Your task to perform on an android device: toggle location history Image 0: 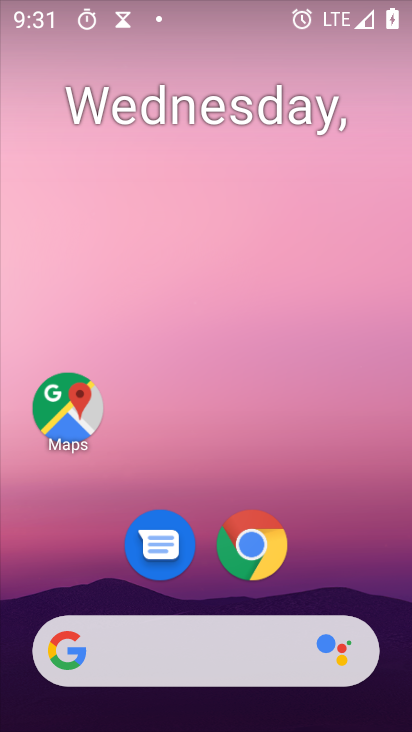
Step 0: press home button
Your task to perform on an android device: toggle location history Image 1: 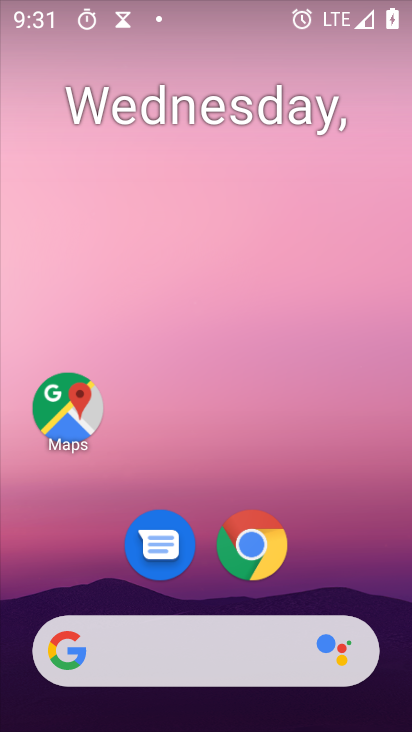
Step 1: click (69, 418)
Your task to perform on an android device: toggle location history Image 2: 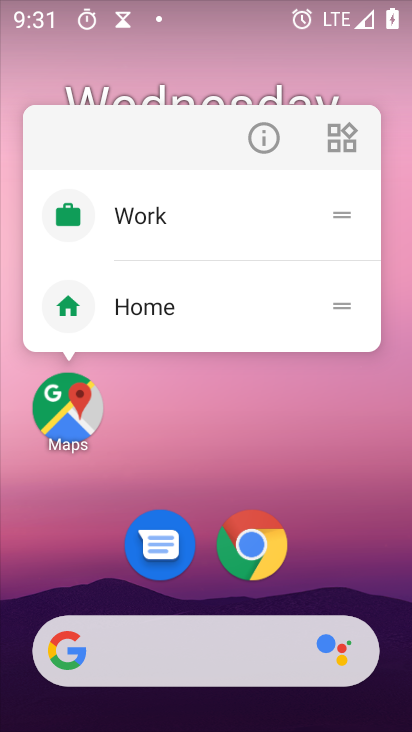
Step 2: click (55, 424)
Your task to perform on an android device: toggle location history Image 3: 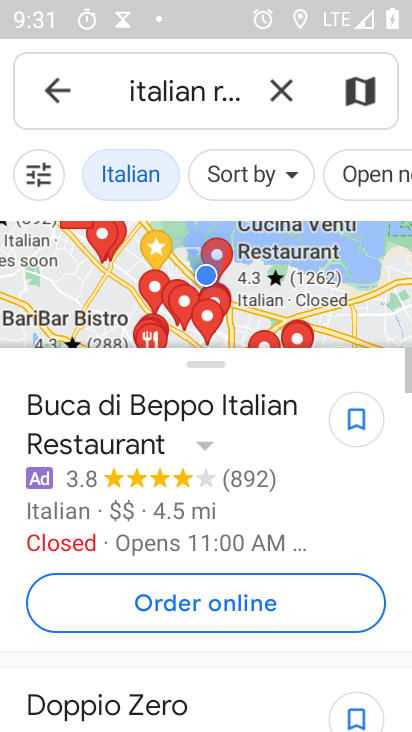
Step 3: click (66, 94)
Your task to perform on an android device: toggle location history Image 4: 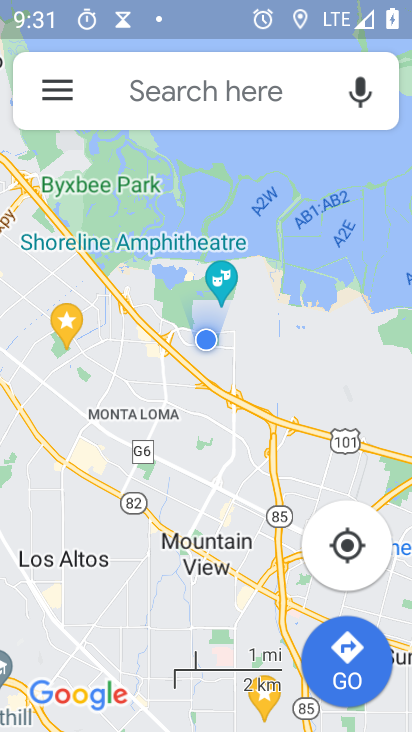
Step 4: click (52, 96)
Your task to perform on an android device: toggle location history Image 5: 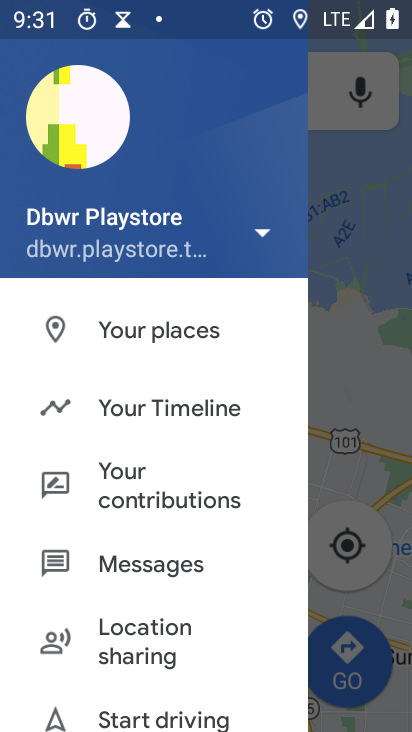
Step 5: click (179, 414)
Your task to perform on an android device: toggle location history Image 6: 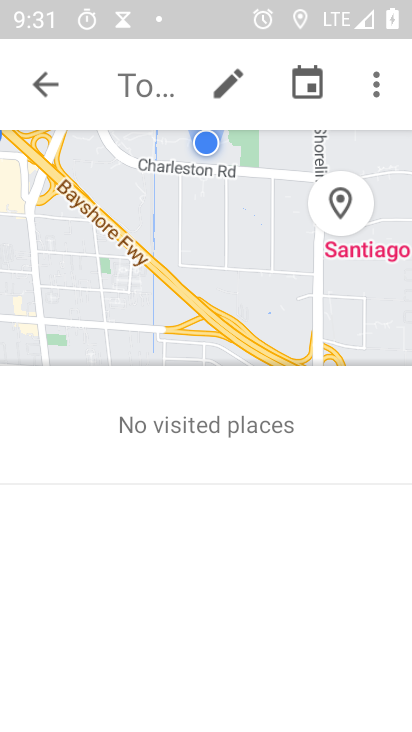
Step 6: click (376, 89)
Your task to perform on an android device: toggle location history Image 7: 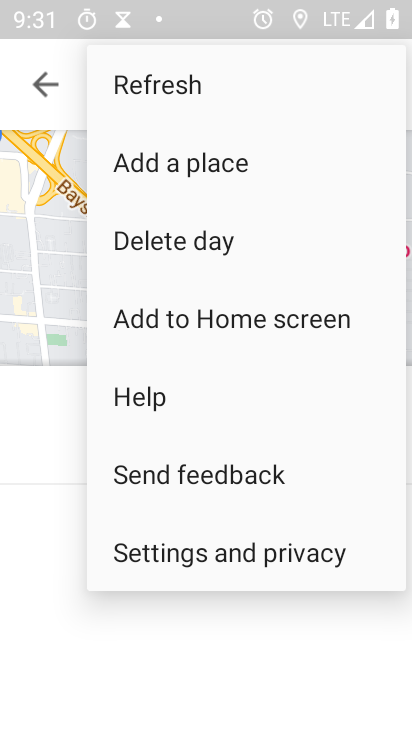
Step 7: click (212, 559)
Your task to perform on an android device: toggle location history Image 8: 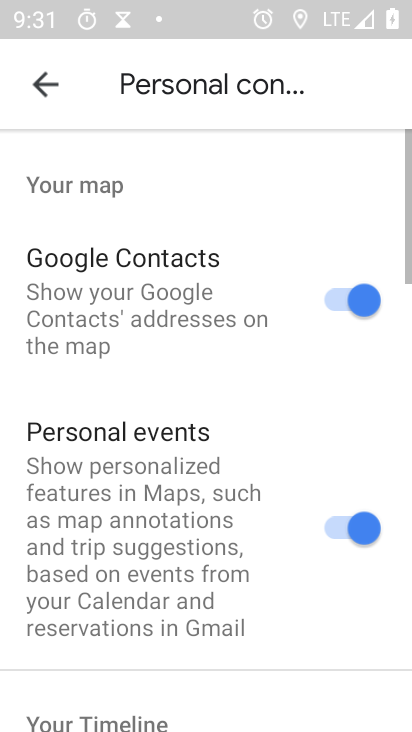
Step 8: drag from (163, 612) to (354, 83)
Your task to perform on an android device: toggle location history Image 9: 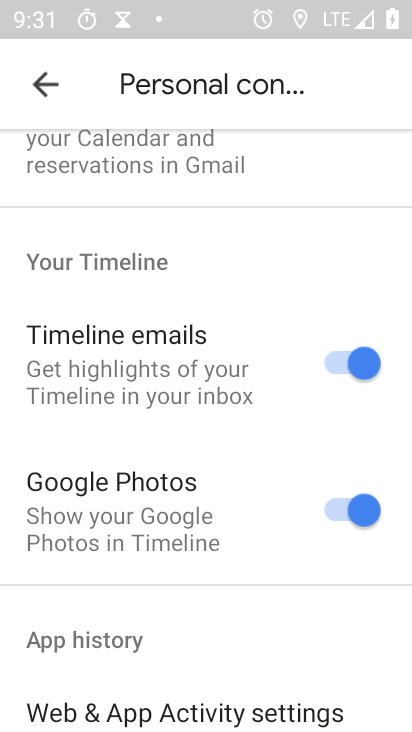
Step 9: drag from (201, 643) to (333, 139)
Your task to perform on an android device: toggle location history Image 10: 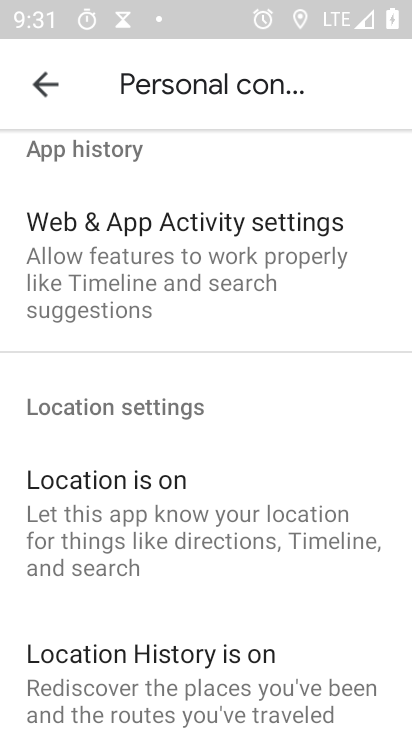
Step 10: drag from (239, 599) to (364, 276)
Your task to perform on an android device: toggle location history Image 11: 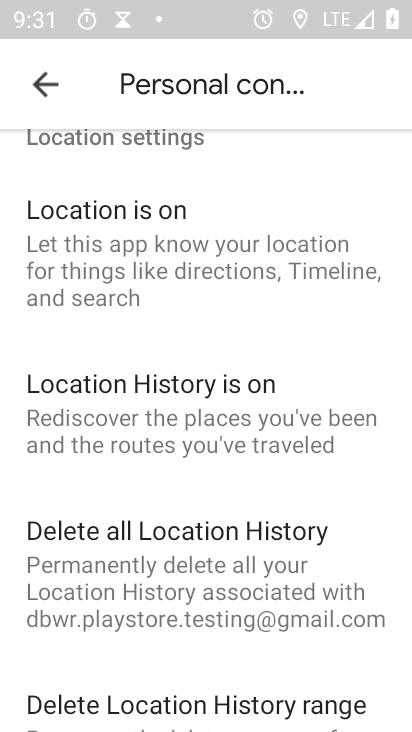
Step 11: click (186, 417)
Your task to perform on an android device: toggle location history Image 12: 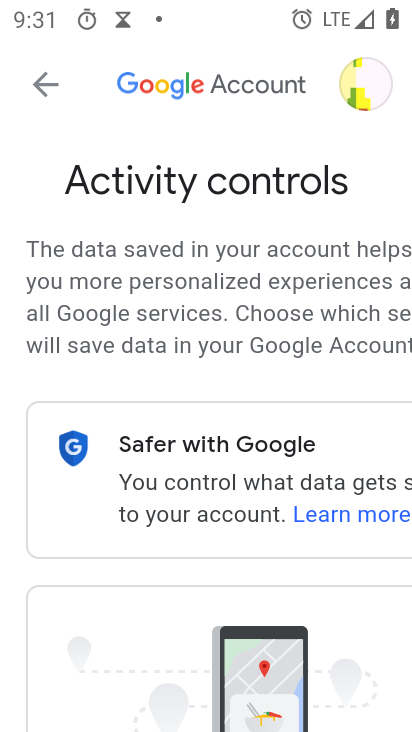
Step 12: drag from (182, 652) to (360, 123)
Your task to perform on an android device: toggle location history Image 13: 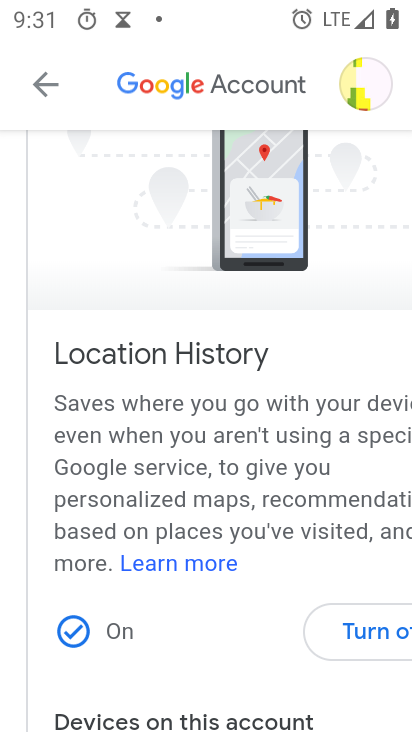
Step 13: click (384, 635)
Your task to perform on an android device: toggle location history Image 14: 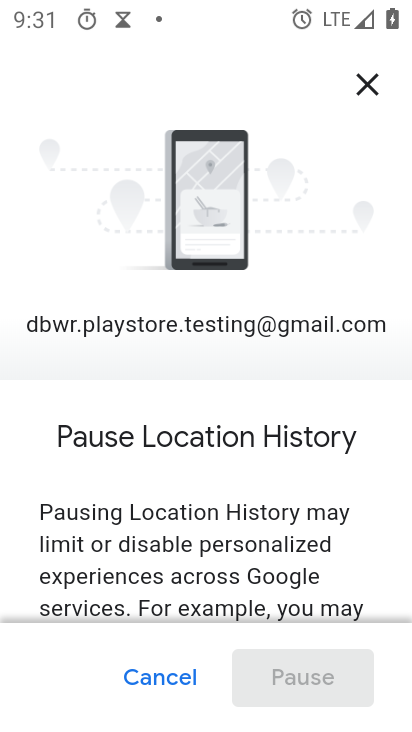
Step 14: drag from (204, 586) to (352, 106)
Your task to perform on an android device: toggle location history Image 15: 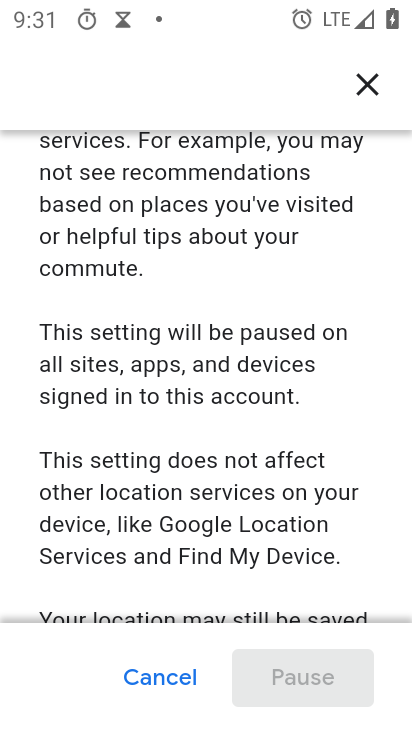
Step 15: drag from (238, 578) to (409, 263)
Your task to perform on an android device: toggle location history Image 16: 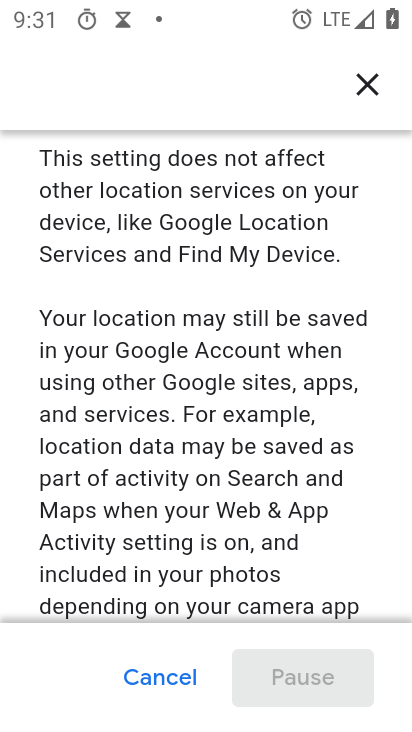
Step 16: drag from (320, 515) to (408, 184)
Your task to perform on an android device: toggle location history Image 17: 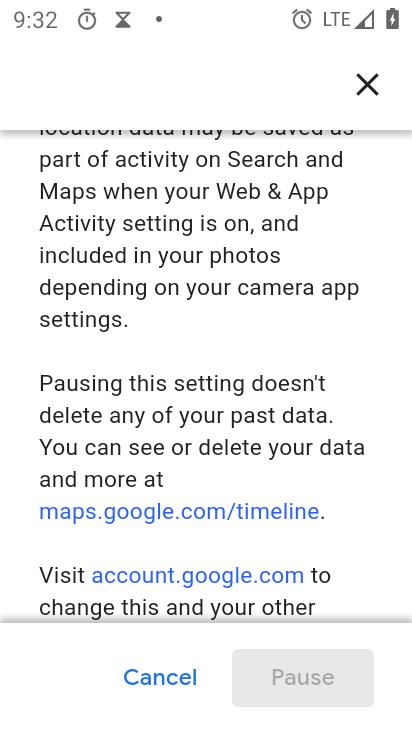
Step 17: drag from (322, 599) to (410, 251)
Your task to perform on an android device: toggle location history Image 18: 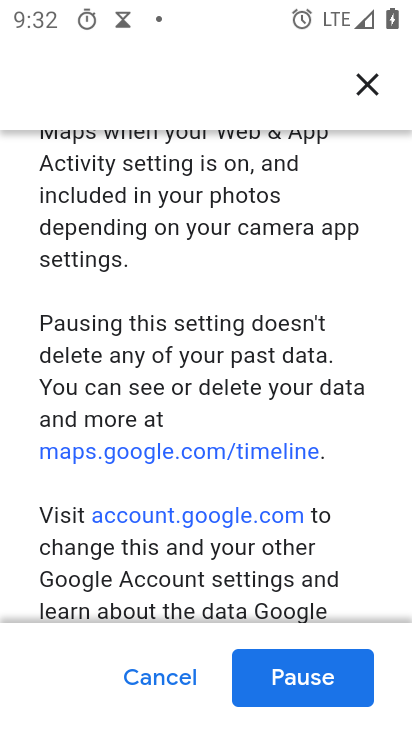
Step 18: click (319, 686)
Your task to perform on an android device: toggle location history Image 19: 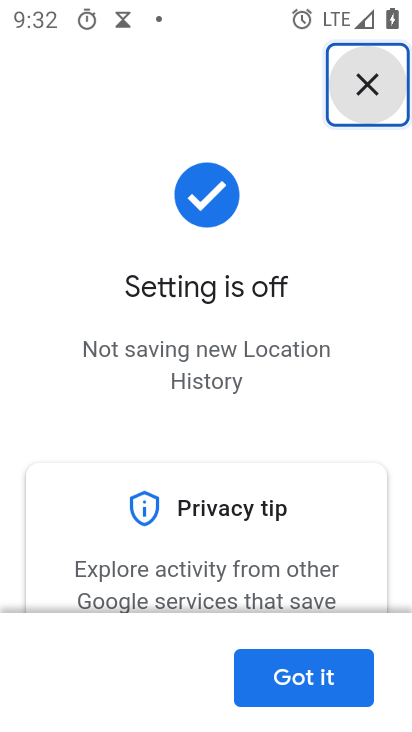
Step 19: click (371, 84)
Your task to perform on an android device: toggle location history Image 20: 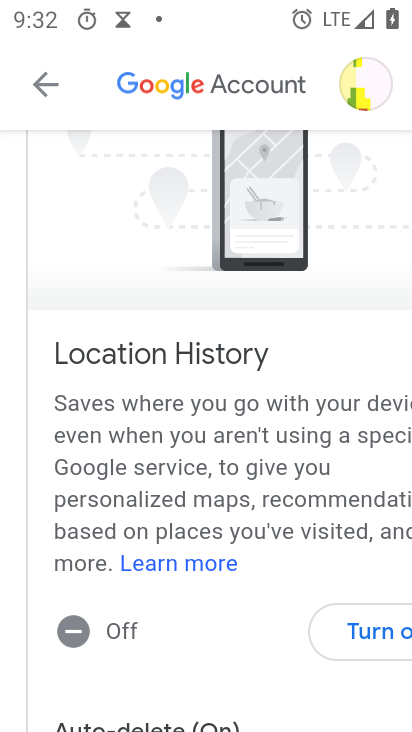
Step 20: task complete